Your task to perform on an android device: Open Google Maps Image 0: 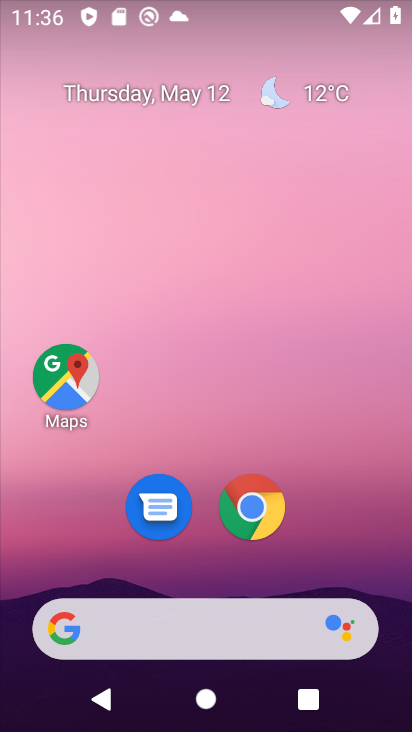
Step 0: click (61, 394)
Your task to perform on an android device: Open Google Maps Image 1: 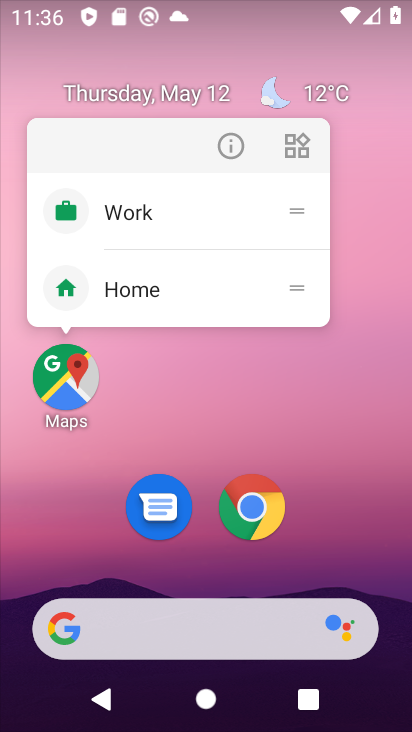
Step 1: click (70, 383)
Your task to perform on an android device: Open Google Maps Image 2: 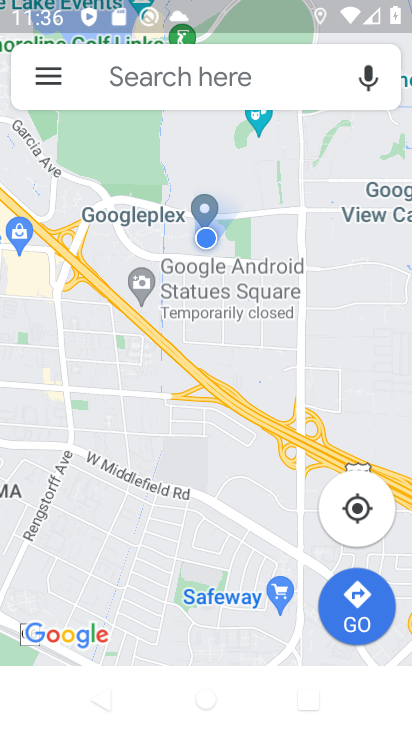
Step 2: task complete